Your task to perform on an android device: Go to Android settings Image 0: 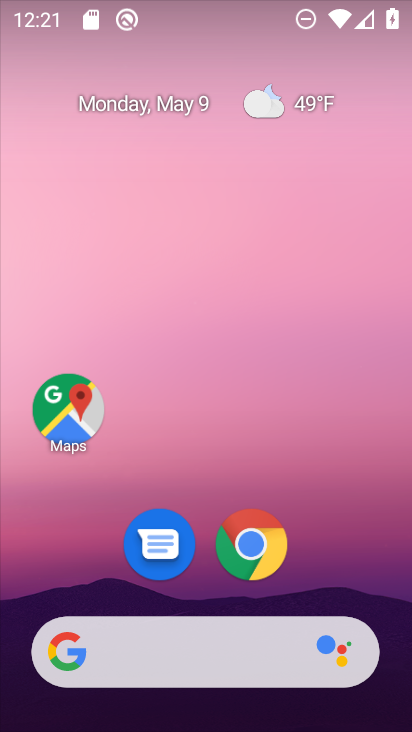
Step 0: drag from (330, 473) to (382, 58)
Your task to perform on an android device: Go to Android settings Image 1: 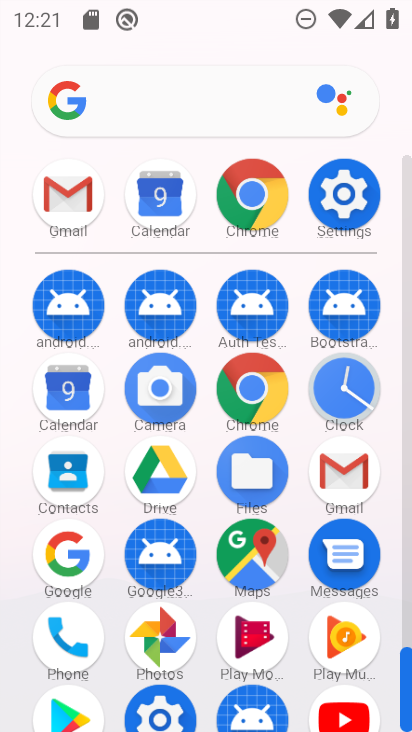
Step 1: click (338, 194)
Your task to perform on an android device: Go to Android settings Image 2: 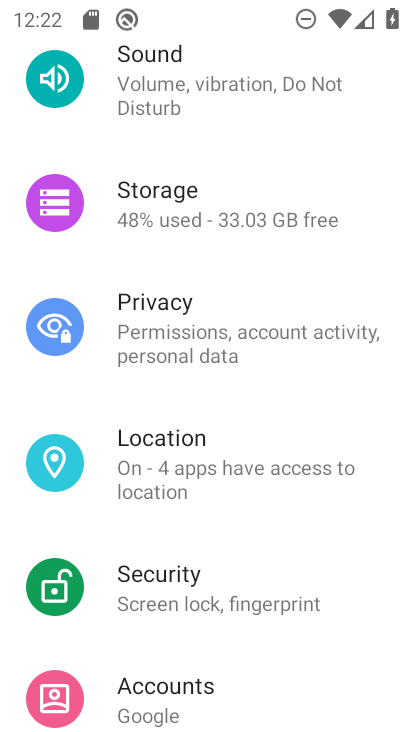
Step 2: drag from (121, 653) to (200, 166)
Your task to perform on an android device: Go to Android settings Image 3: 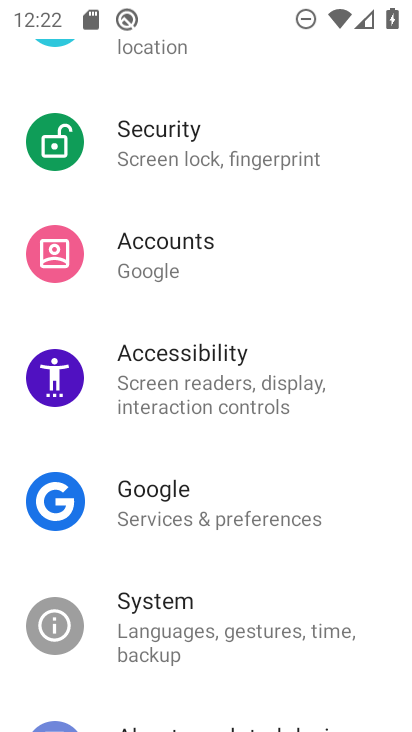
Step 3: drag from (162, 600) to (299, 98)
Your task to perform on an android device: Go to Android settings Image 4: 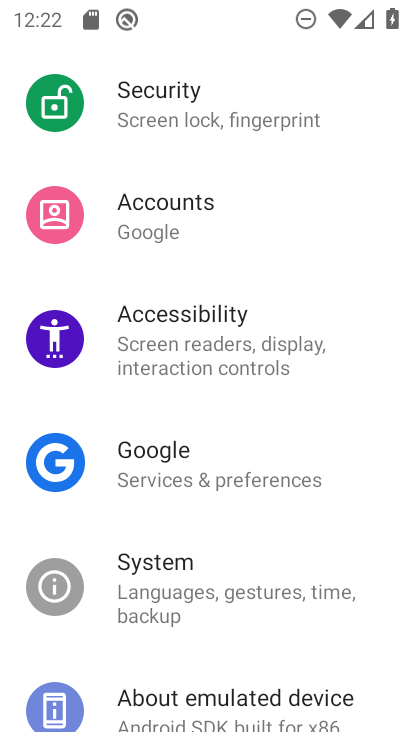
Step 4: drag from (207, 568) to (273, 183)
Your task to perform on an android device: Go to Android settings Image 5: 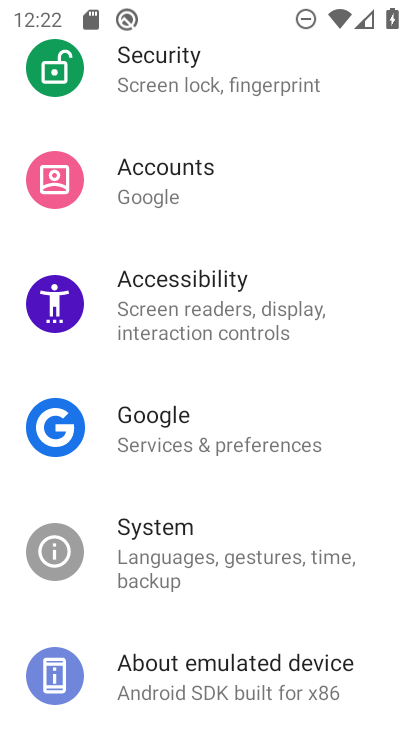
Step 5: click (149, 695)
Your task to perform on an android device: Go to Android settings Image 6: 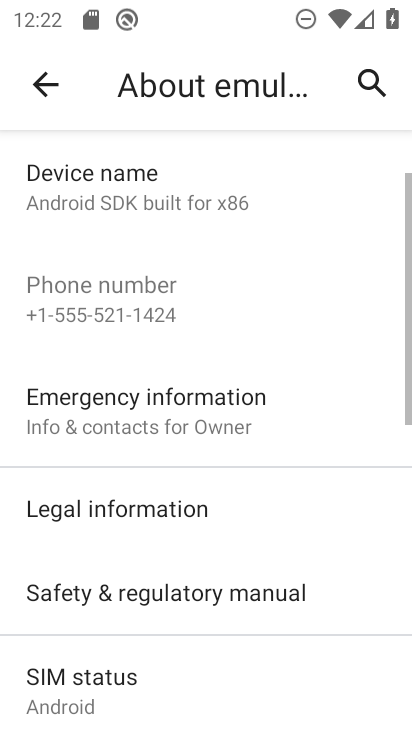
Step 6: drag from (180, 657) to (344, 1)
Your task to perform on an android device: Go to Android settings Image 7: 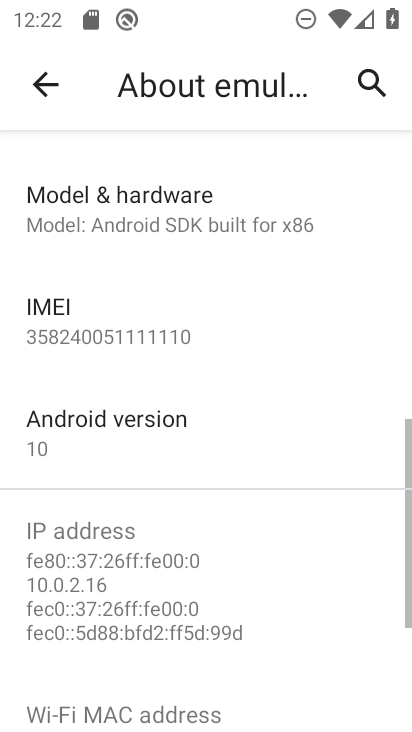
Step 7: click (128, 437)
Your task to perform on an android device: Go to Android settings Image 8: 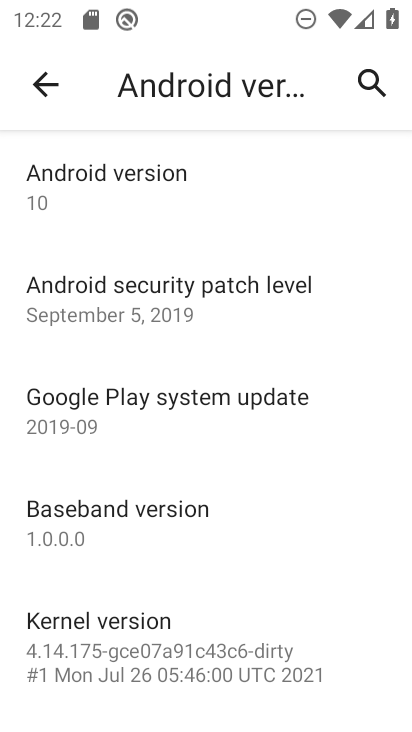
Step 8: task complete